Your task to perform on an android device: delete location history Image 0: 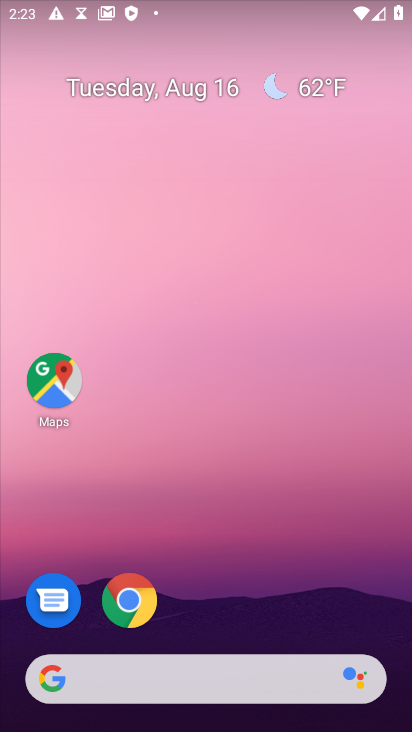
Step 0: click (61, 394)
Your task to perform on an android device: delete location history Image 1: 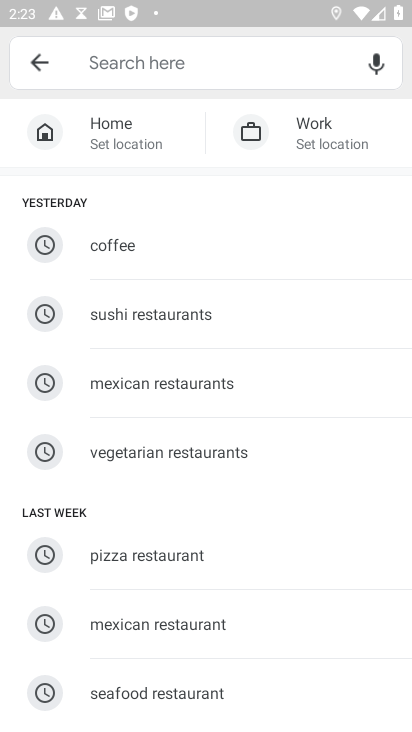
Step 1: click (33, 63)
Your task to perform on an android device: delete location history Image 2: 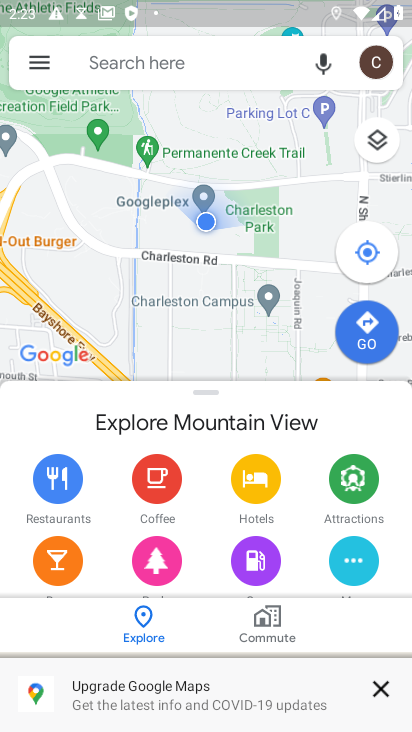
Step 2: click (47, 71)
Your task to perform on an android device: delete location history Image 3: 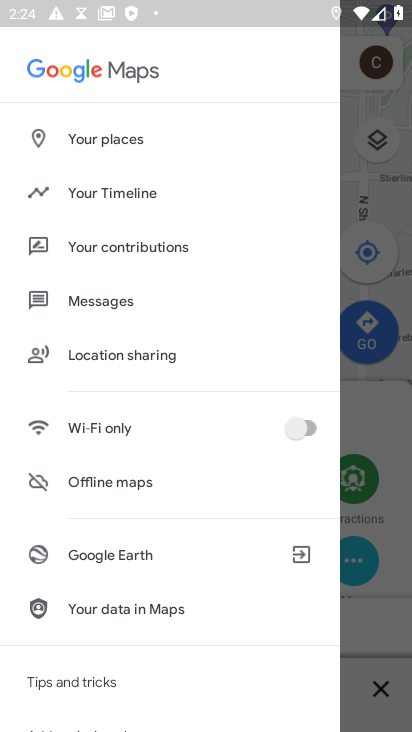
Step 3: click (88, 192)
Your task to perform on an android device: delete location history Image 4: 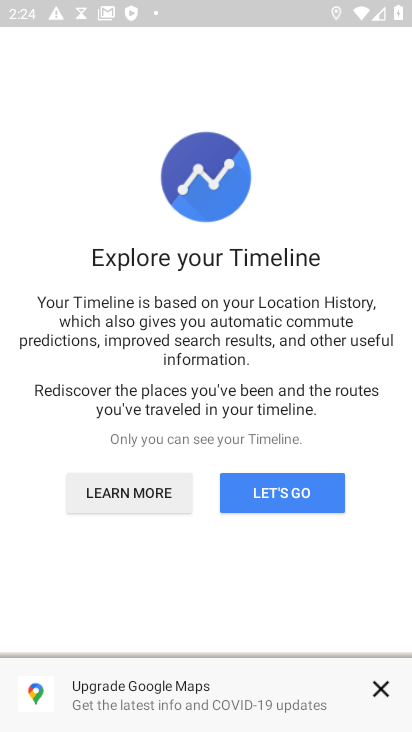
Step 4: click (271, 488)
Your task to perform on an android device: delete location history Image 5: 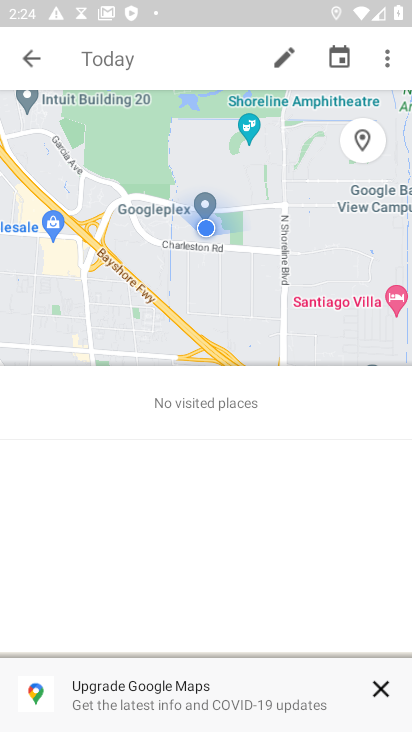
Step 5: click (378, 65)
Your task to perform on an android device: delete location history Image 6: 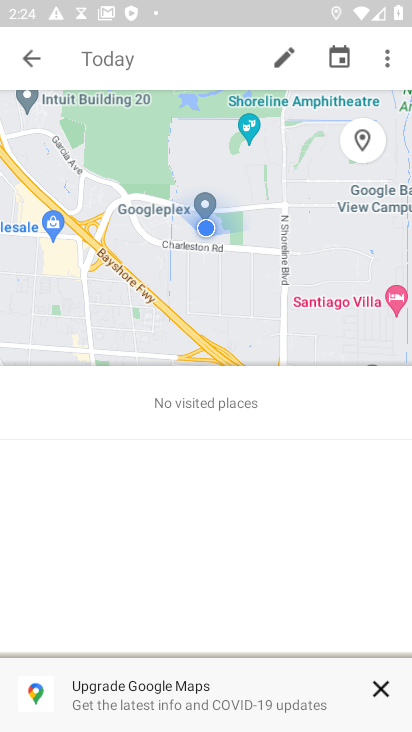
Step 6: click (387, 66)
Your task to perform on an android device: delete location history Image 7: 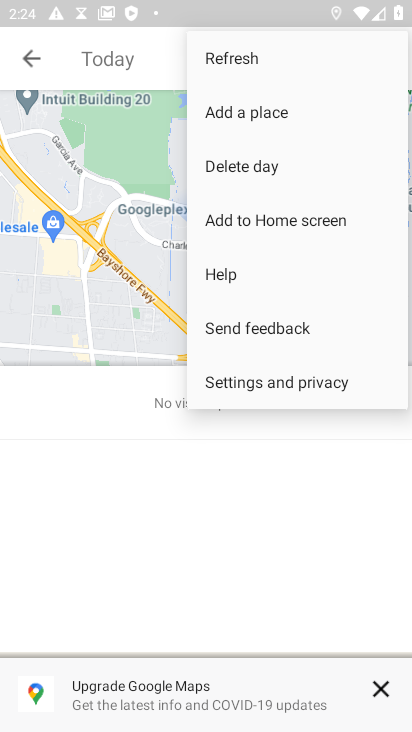
Step 7: click (268, 379)
Your task to perform on an android device: delete location history Image 8: 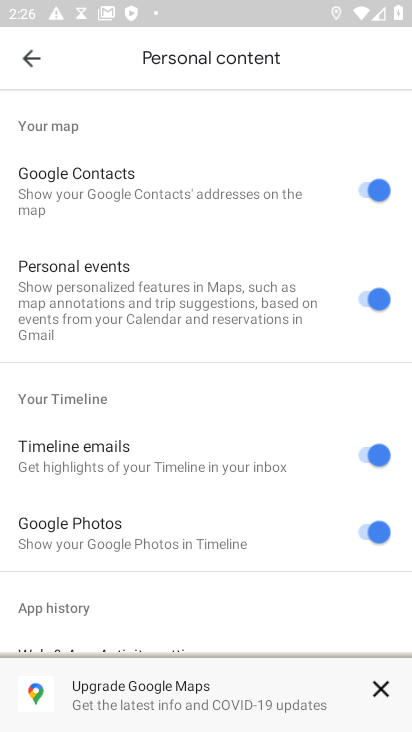
Step 8: drag from (241, 561) to (228, 32)
Your task to perform on an android device: delete location history Image 9: 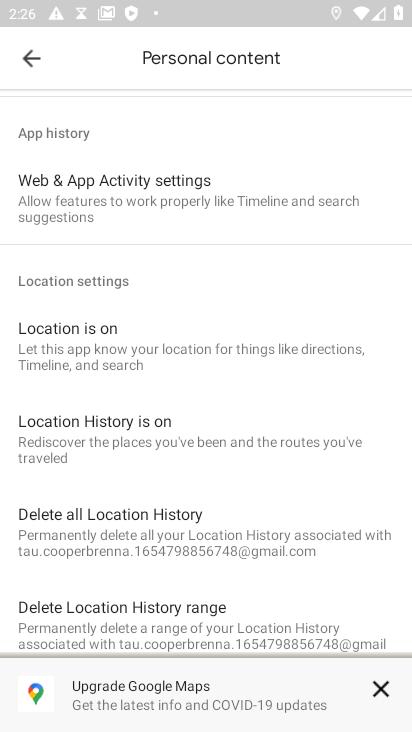
Step 9: drag from (235, 556) to (177, 39)
Your task to perform on an android device: delete location history Image 10: 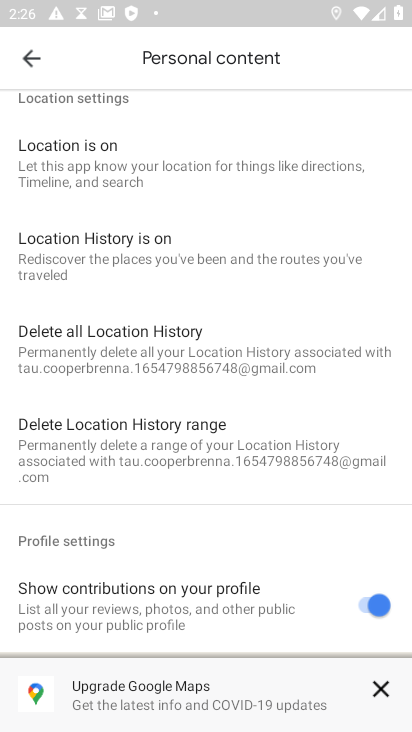
Step 10: click (159, 363)
Your task to perform on an android device: delete location history Image 11: 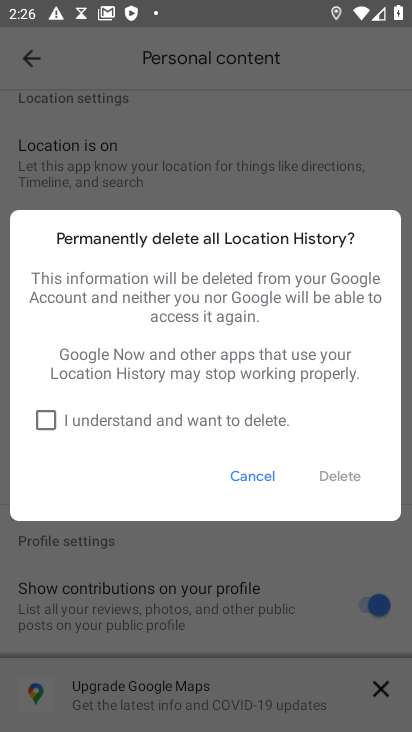
Step 11: click (178, 416)
Your task to perform on an android device: delete location history Image 12: 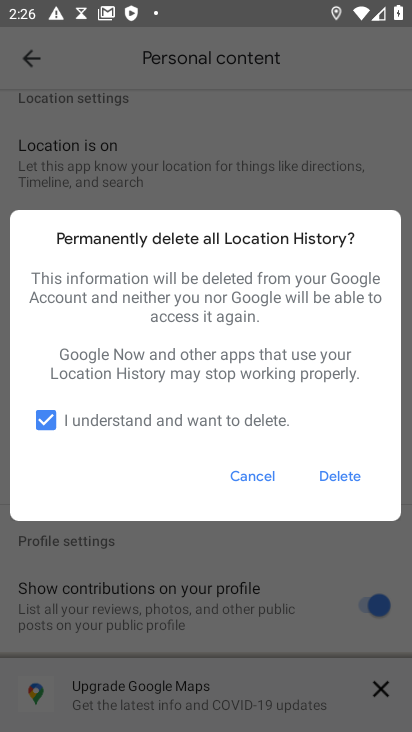
Step 12: click (335, 479)
Your task to perform on an android device: delete location history Image 13: 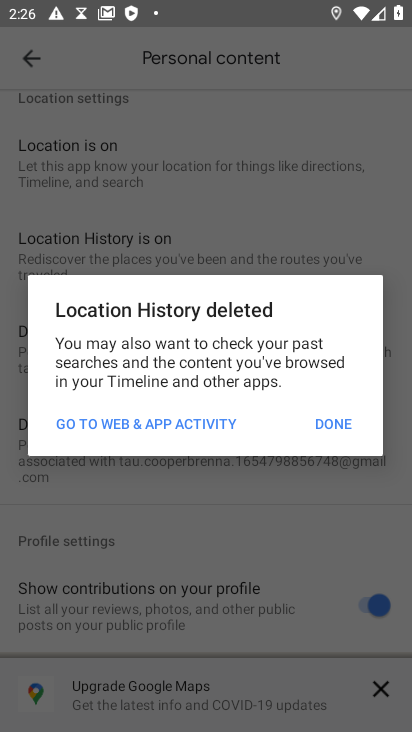
Step 13: click (345, 425)
Your task to perform on an android device: delete location history Image 14: 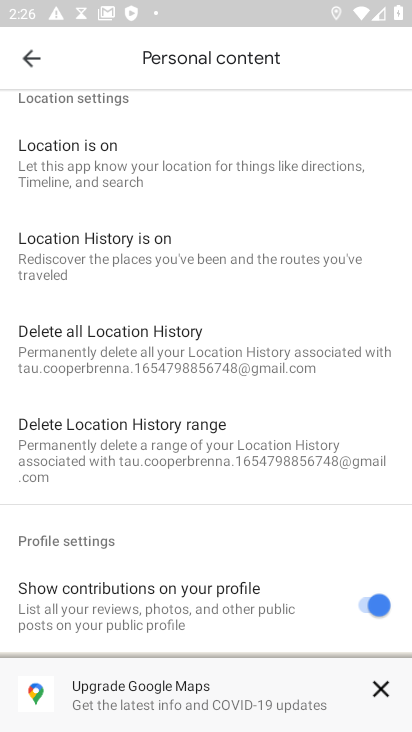
Step 14: task complete